Your task to perform on an android device: Go to settings Image 0: 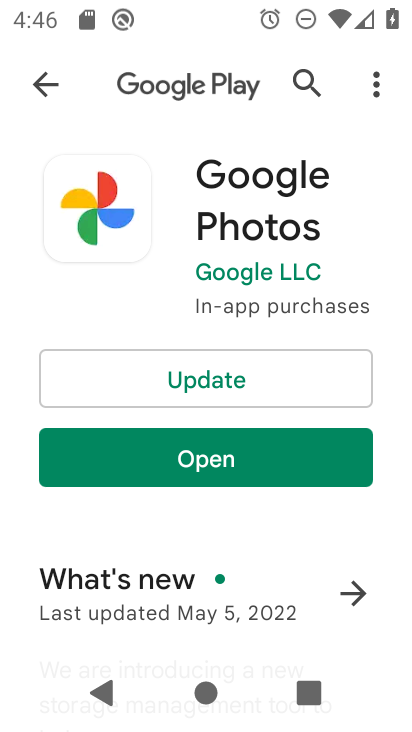
Step 0: press home button
Your task to perform on an android device: Go to settings Image 1: 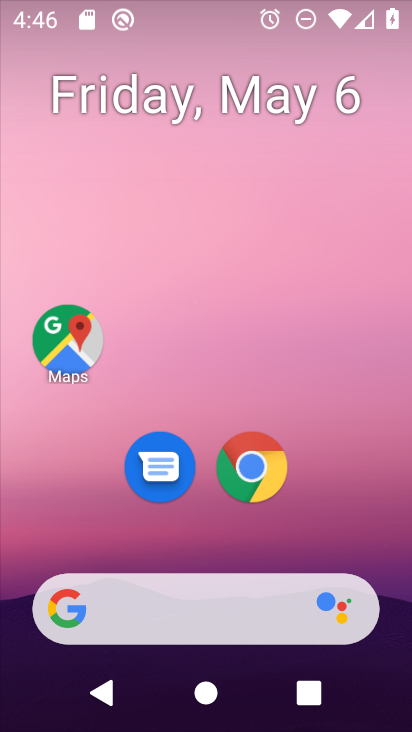
Step 1: drag from (365, 351) to (367, 69)
Your task to perform on an android device: Go to settings Image 2: 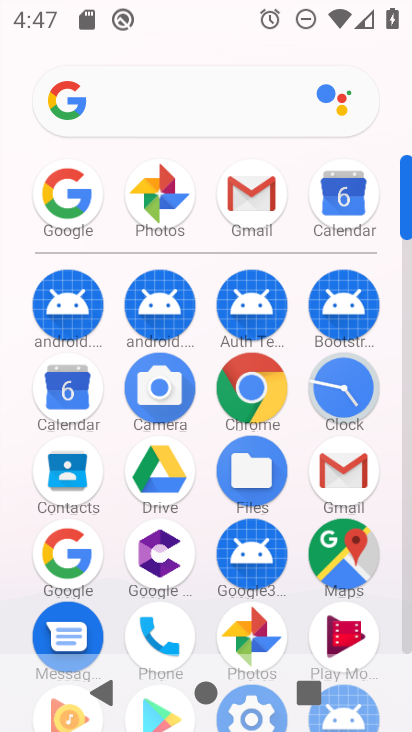
Step 2: drag from (278, 639) to (334, 324)
Your task to perform on an android device: Go to settings Image 3: 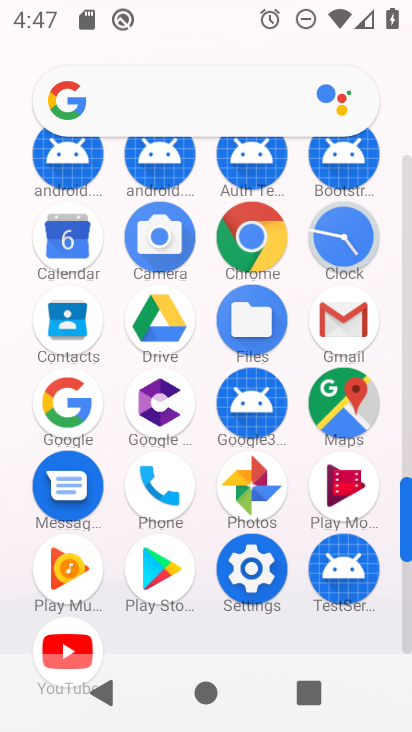
Step 3: click (266, 573)
Your task to perform on an android device: Go to settings Image 4: 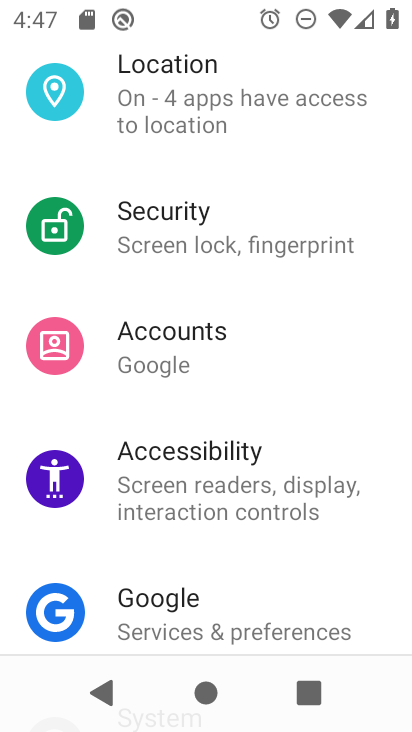
Step 4: task complete